Your task to perform on an android device: allow notifications from all sites in the chrome app Image 0: 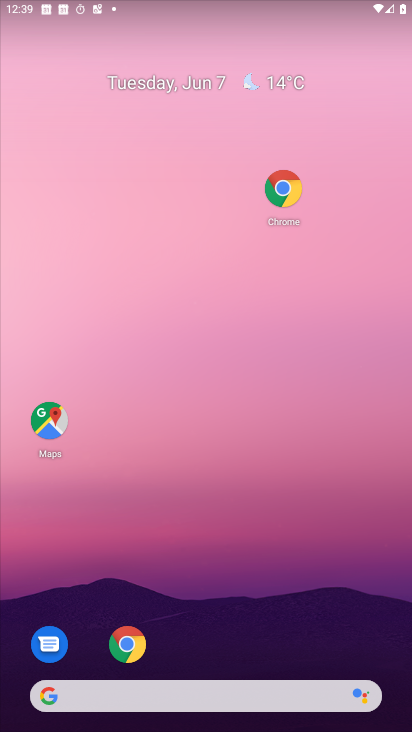
Step 0: drag from (344, 611) to (335, 120)
Your task to perform on an android device: allow notifications from all sites in the chrome app Image 1: 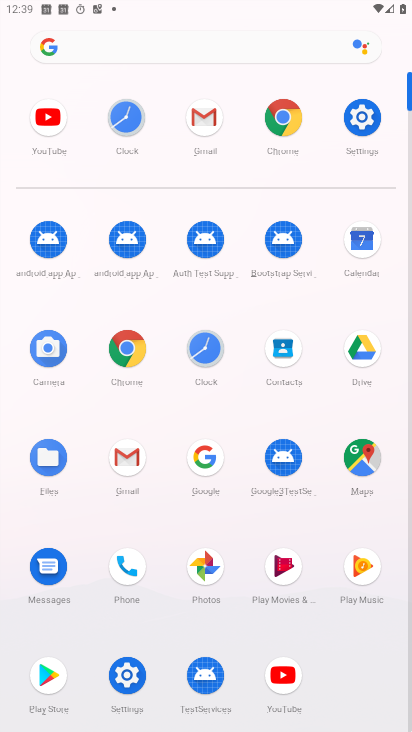
Step 1: click (285, 124)
Your task to perform on an android device: allow notifications from all sites in the chrome app Image 2: 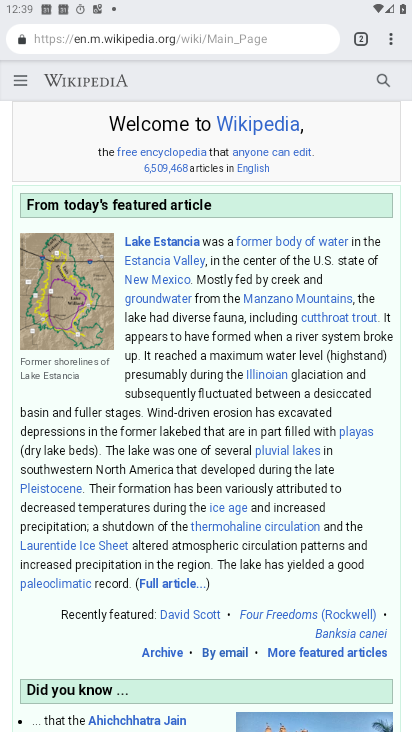
Step 2: drag from (391, 33) to (255, 478)
Your task to perform on an android device: allow notifications from all sites in the chrome app Image 3: 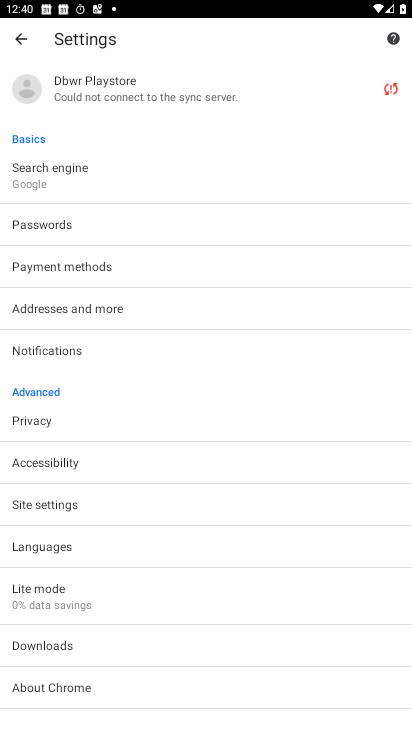
Step 3: click (84, 499)
Your task to perform on an android device: allow notifications from all sites in the chrome app Image 4: 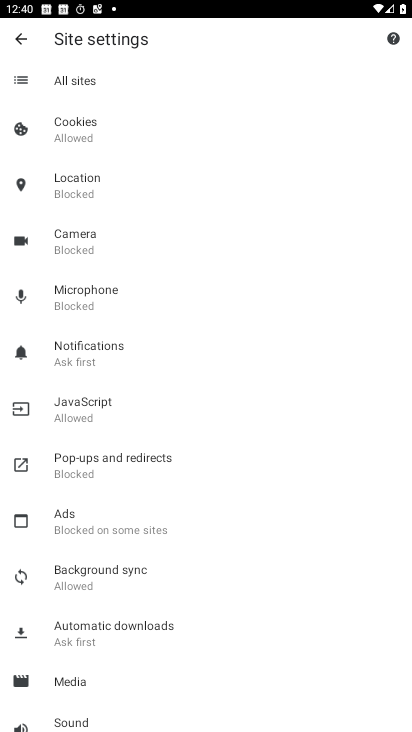
Step 4: click (87, 344)
Your task to perform on an android device: allow notifications from all sites in the chrome app Image 5: 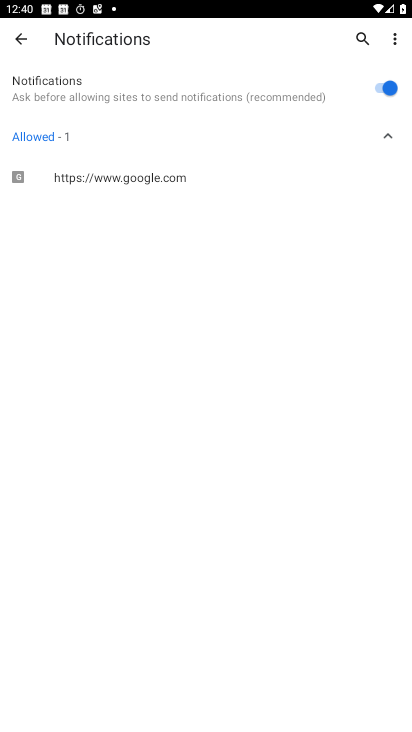
Step 5: task complete